Your task to perform on an android device: turn on improve location accuracy Image 0: 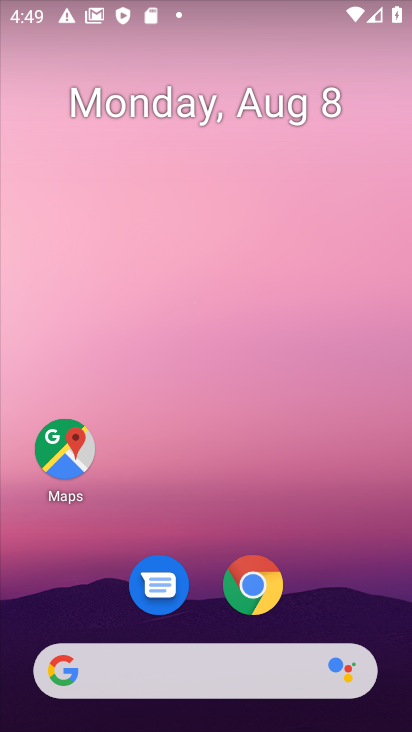
Step 0: drag from (182, 542) to (259, 5)
Your task to perform on an android device: turn on improve location accuracy Image 1: 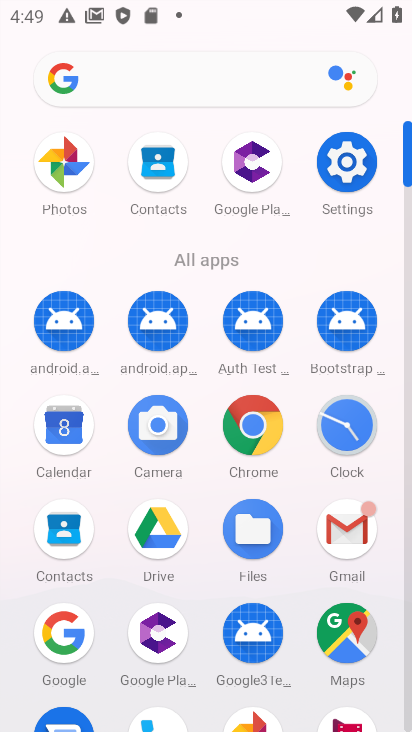
Step 1: click (340, 163)
Your task to perform on an android device: turn on improve location accuracy Image 2: 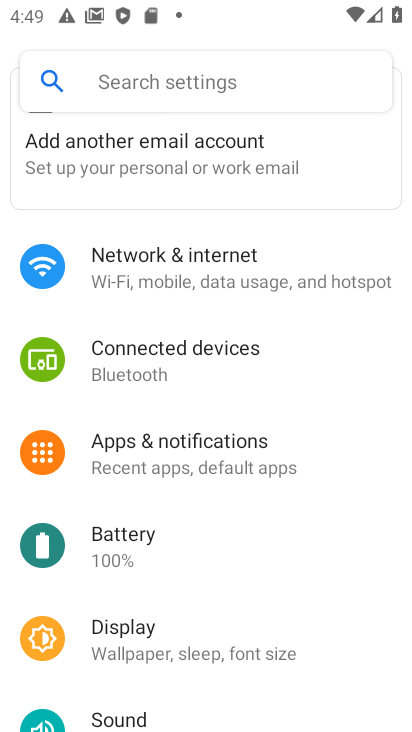
Step 2: drag from (209, 614) to (279, 47)
Your task to perform on an android device: turn on improve location accuracy Image 3: 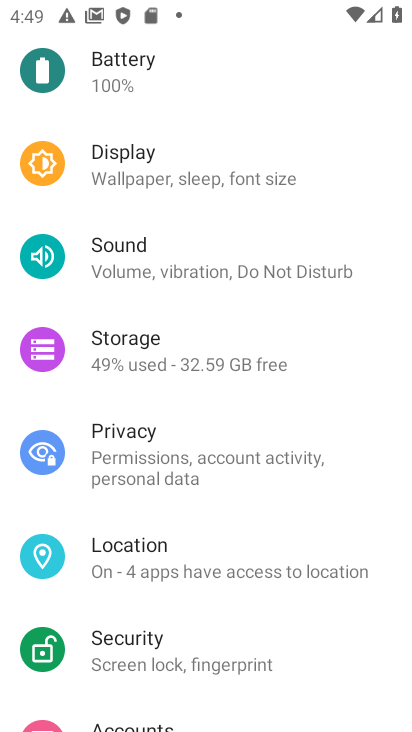
Step 3: click (211, 554)
Your task to perform on an android device: turn on improve location accuracy Image 4: 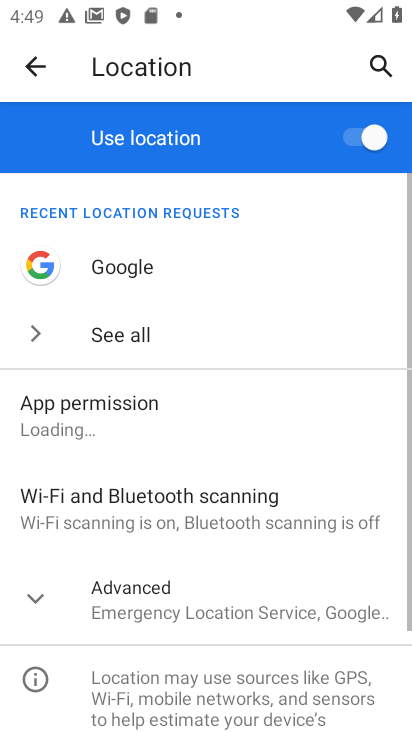
Step 4: drag from (290, 288) to (302, 65)
Your task to perform on an android device: turn on improve location accuracy Image 5: 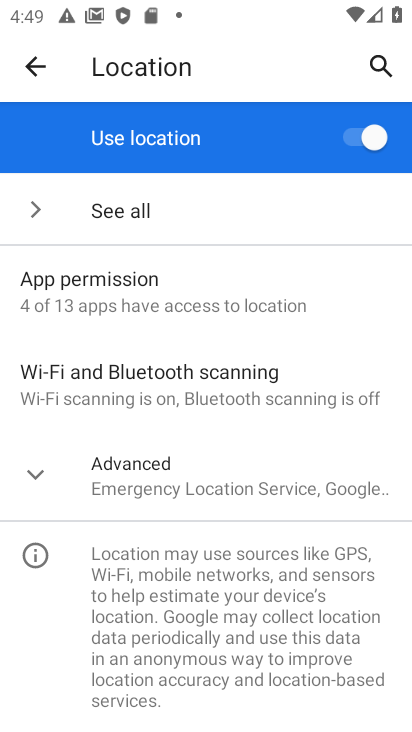
Step 5: click (38, 475)
Your task to perform on an android device: turn on improve location accuracy Image 6: 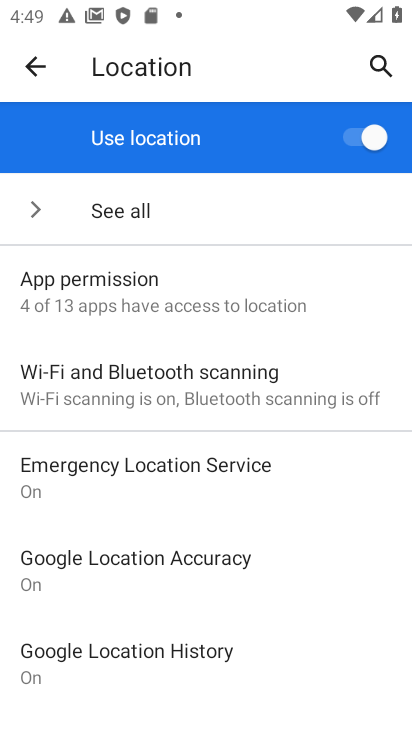
Step 6: click (229, 559)
Your task to perform on an android device: turn on improve location accuracy Image 7: 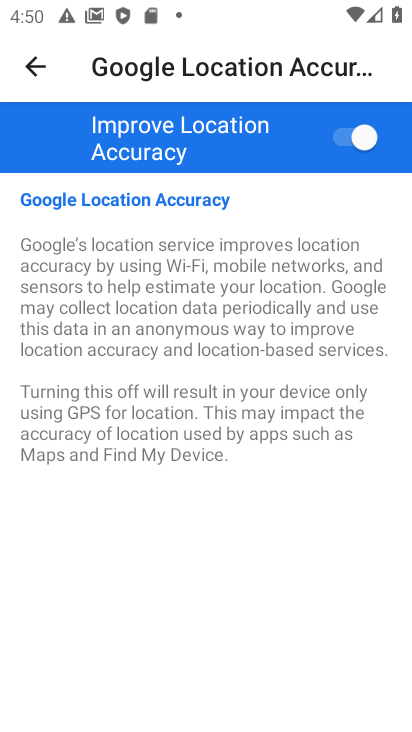
Step 7: task complete